Your task to perform on an android device: toggle pop-ups in chrome Image 0: 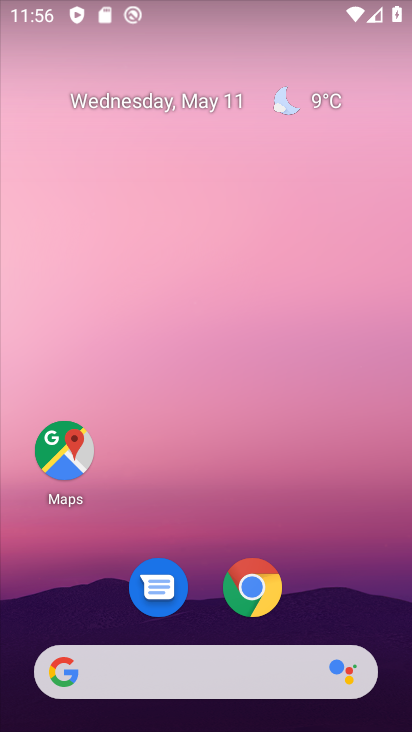
Step 0: drag from (333, 418) to (337, 262)
Your task to perform on an android device: toggle pop-ups in chrome Image 1: 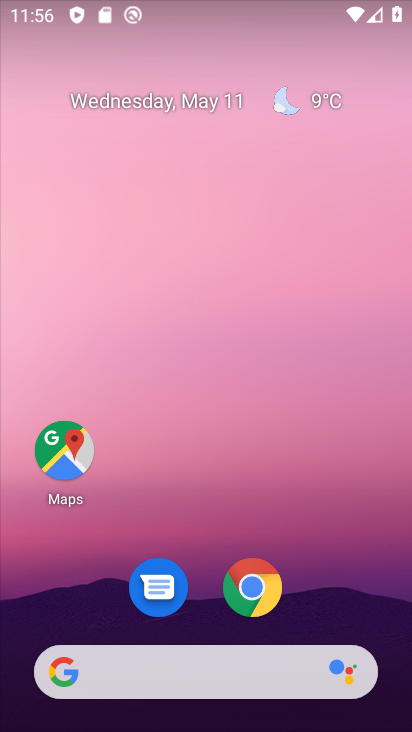
Step 1: drag from (333, 609) to (312, 198)
Your task to perform on an android device: toggle pop-ups in chrome Image 2: 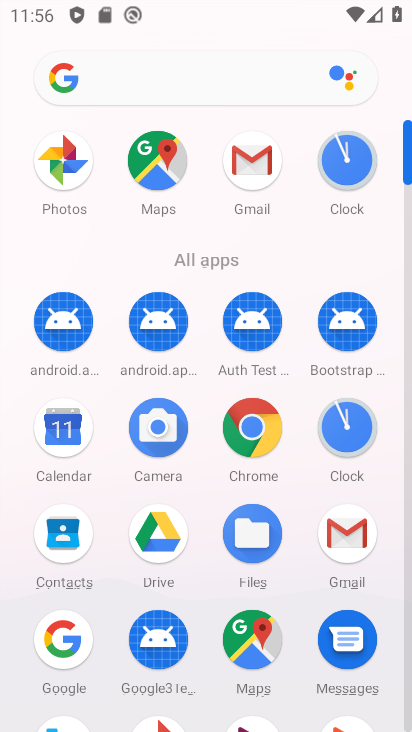
Step 2: click (243, 421)
Your task to perform on an android device: toggle pop-ups in chrome Image 3: 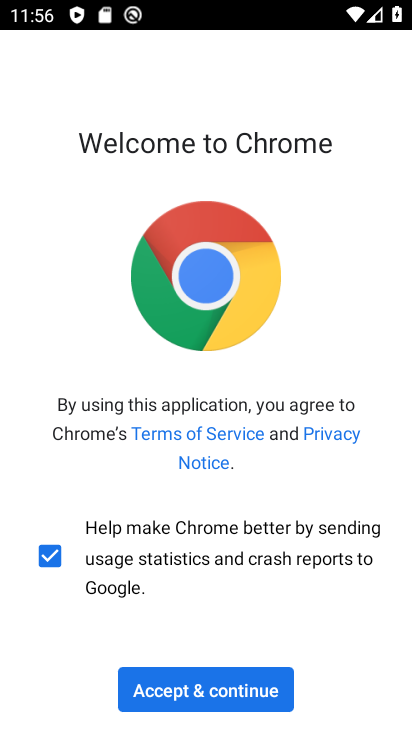
Step 3: click (210, 687)
Your task to perform on an android device: toggle pop-ups in chrome Image 4: 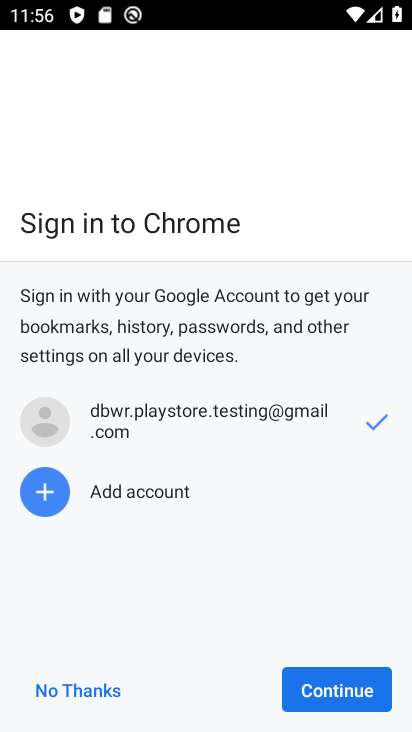
Step 4: click (324, 673)
Your task to perform on an android device: toggle pop-ups in chrome Image 5: 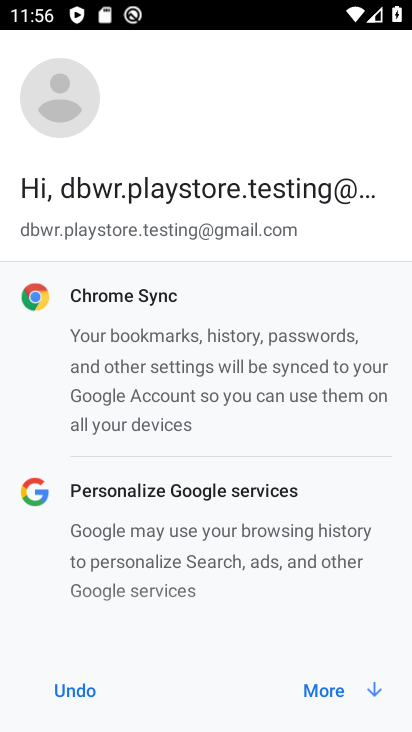
Step 5: click (316, 684)
Your task to perform on an android device: toggle pop-ups in chrome Image 6: 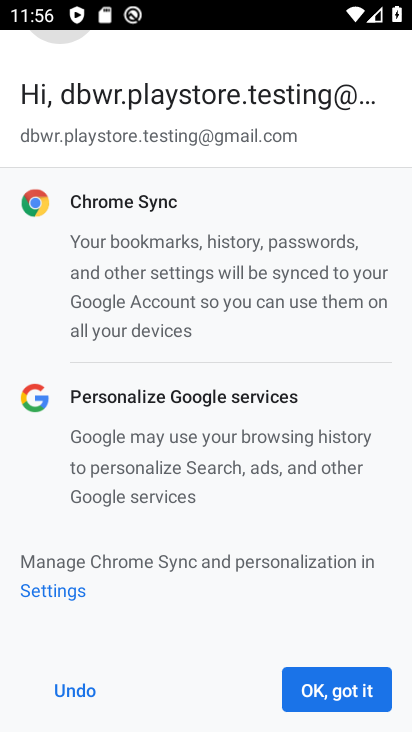
Step 6: click (316, 682)
Your task to perform on an android device: toggle pop-ups in chrome Image 7: 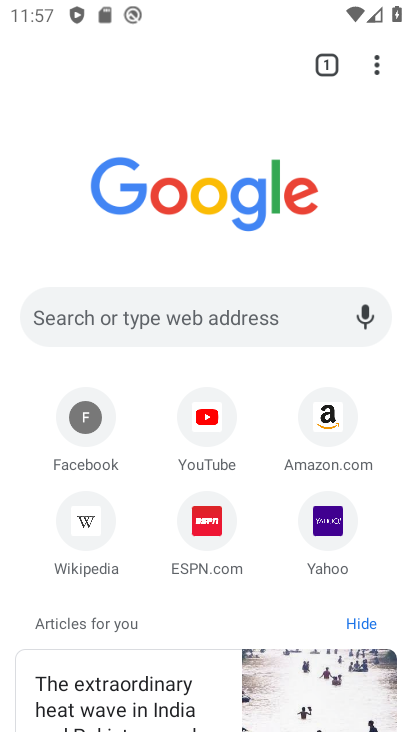
Step 7: click (359, 58)
Your task to perform on an android device: toggle pop-ups in chrome Image 8: 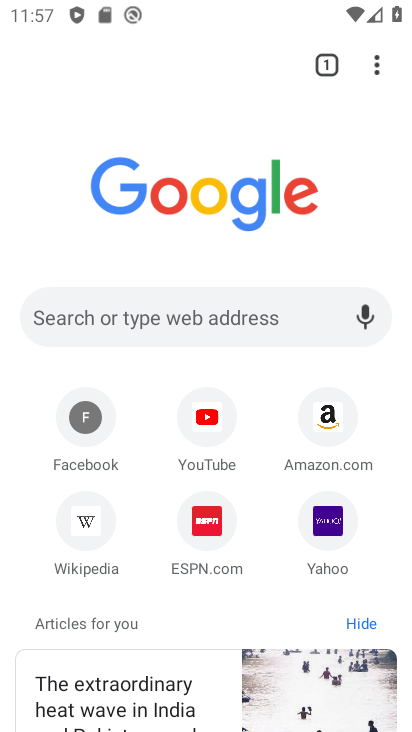
Step 8: click (360, 62)
Your task to perform on an android device: toggle pop-ups in chrome Image 9: 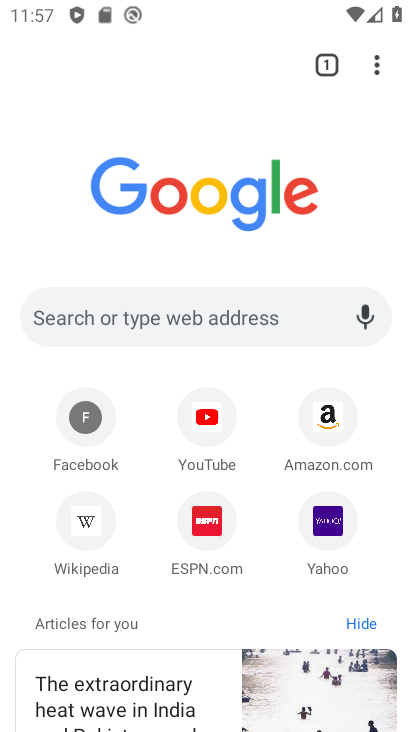
Step 9: click (363, 67)
Your task to perform on an android device: toggle pop-ups in chrome Image 10: 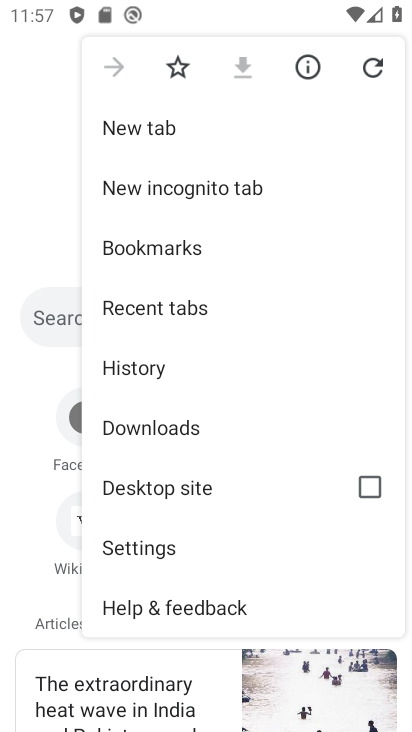
Step 10: click (181, 547)
Your task to perform on an android device: toggle pop-ups in chrome Image 11: 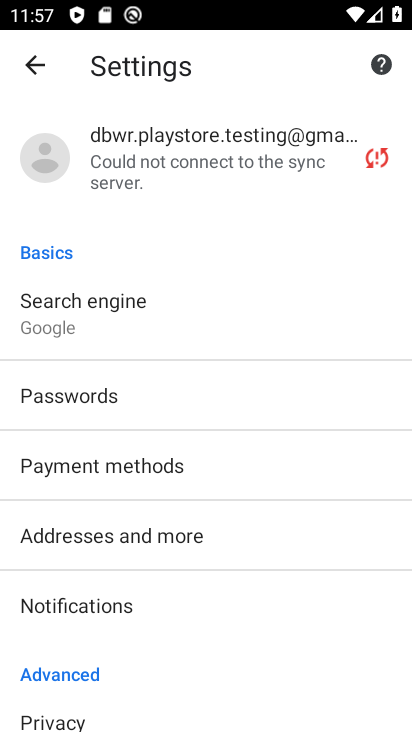
Step 11: drag from (192, 651) to (180, 281)
Your task to perform on an android device: toggle pop-ups in chrome Image 12: 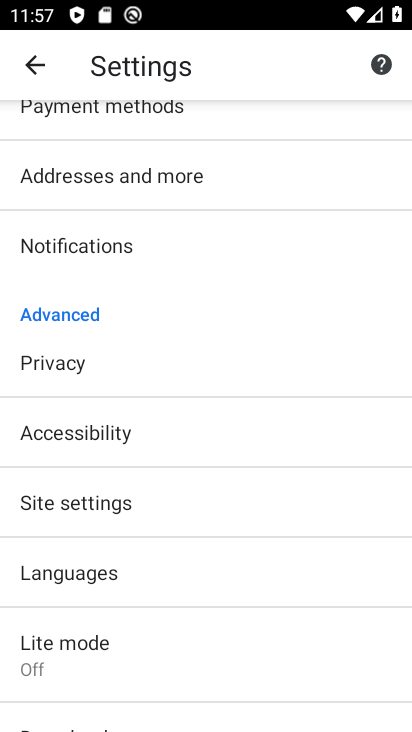
Step 12: click (138, 498)
Your task to perform on an android device: toggle pop-ups in chrome Image 13: 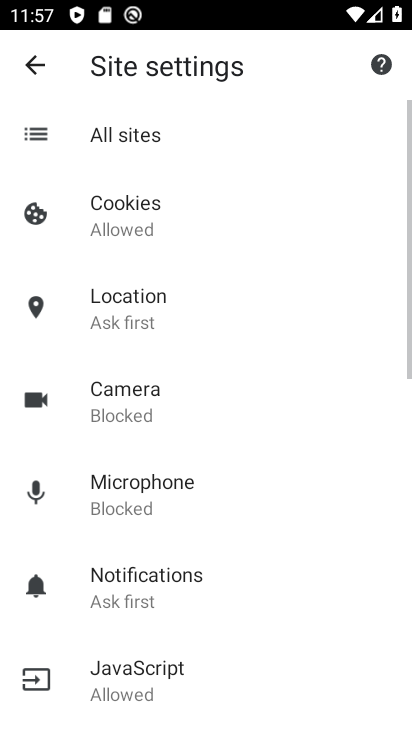
Step 13: drag from (224, 662) to (227, 384)
Your task to perform on an android device: toggle pop-ups in chrome Image 14: 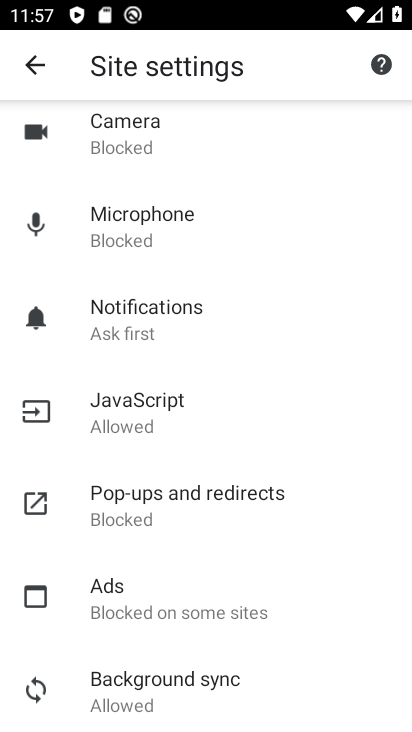
Step 14: click (201, 504)
Your task to perform on an android device: toggle pop-ups in chrome Image 15: 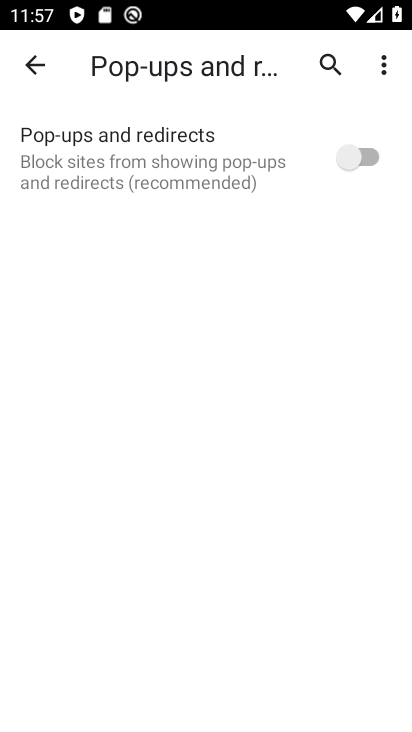
Step 15: click (360, 149)
Your task to perform on an android device: toggle pop-ups in chrome Image 16: 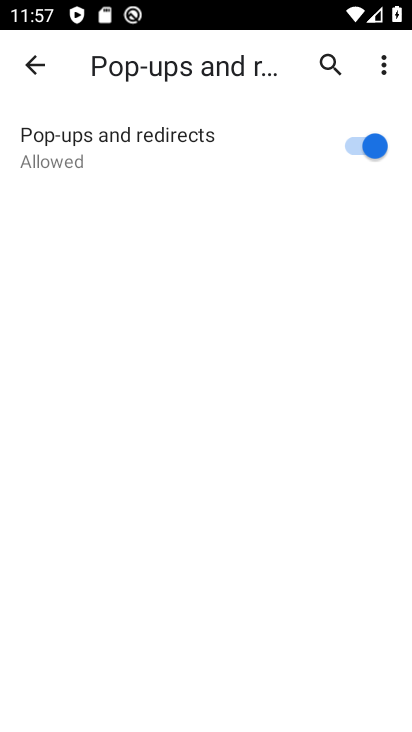
Step 16: task complete